Your task to perform on an android device: Go to privacy settings Image 0: 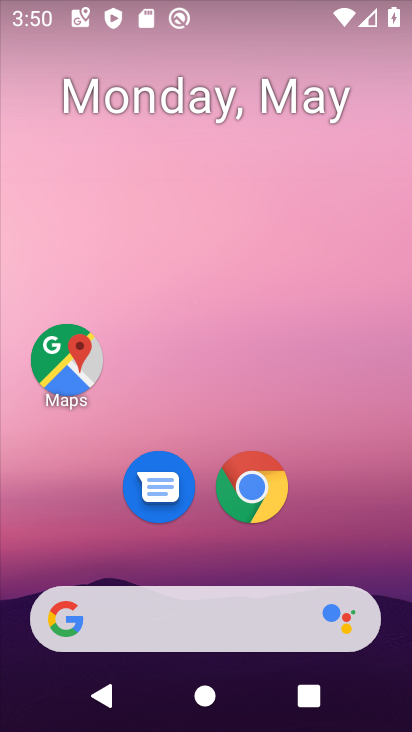
Step 0: drag from (236, 451) to (259, 149)
Your task to perform on an android device: Go to privacy settings Image 1: 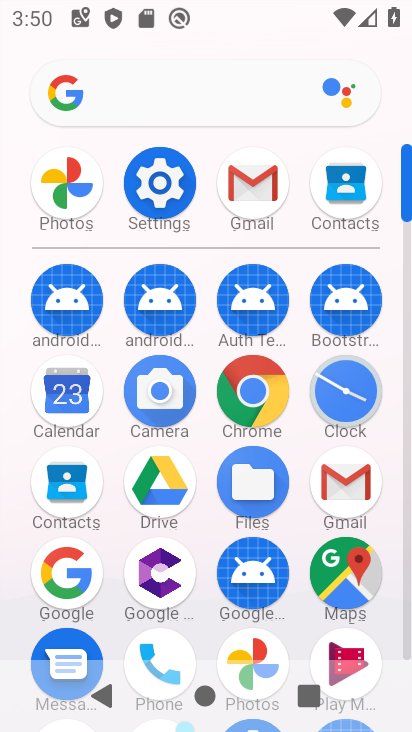
Step 1: click (152, 187)
Your task to perform on an android device: Go to privacy settings Image 2: 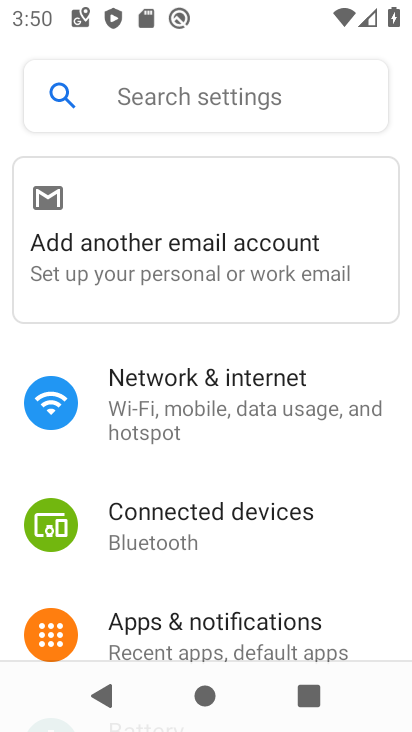
Step 2: drag from (153, 639) to (184, 219)
Your task to perform on an android device: Go to privacy settings Image 3: 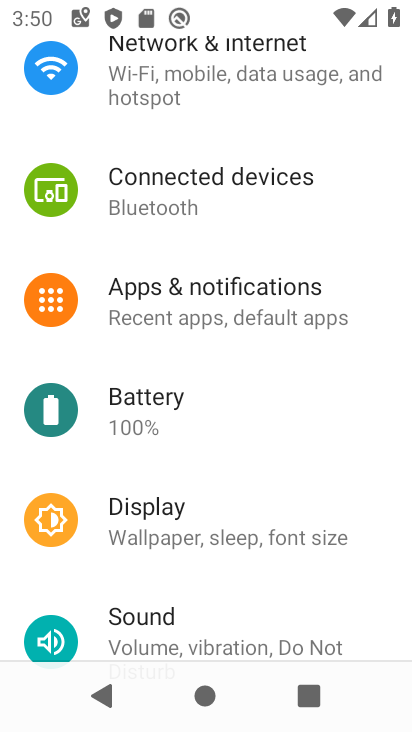
Step 3: click (177, 328)
Your task to perform on an android device: Go to privacy settings Image 4: 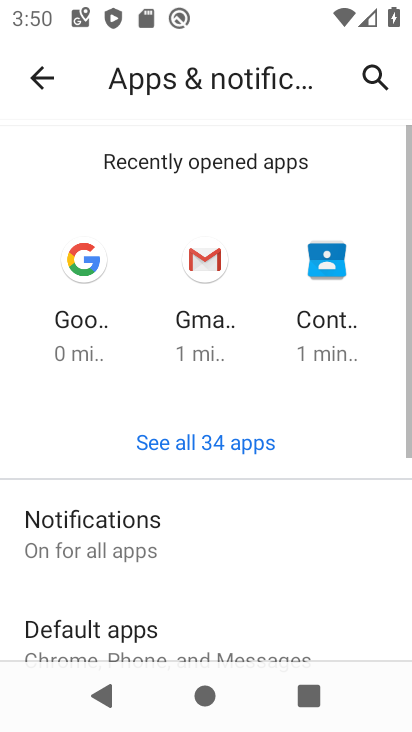
Step 4: click (55, 77)
Your task to perform on an android device: Go to privacy settings Image 5: 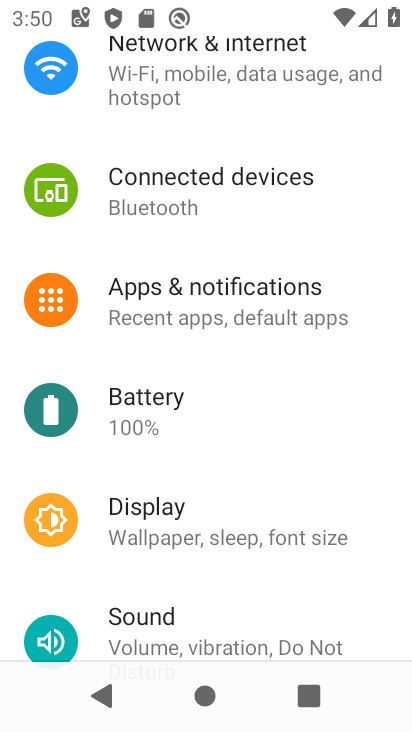
Step 5: drag from (210, 624) to (222, 203)
Your task to perform on an android device: Go to privacy settings Image 6: 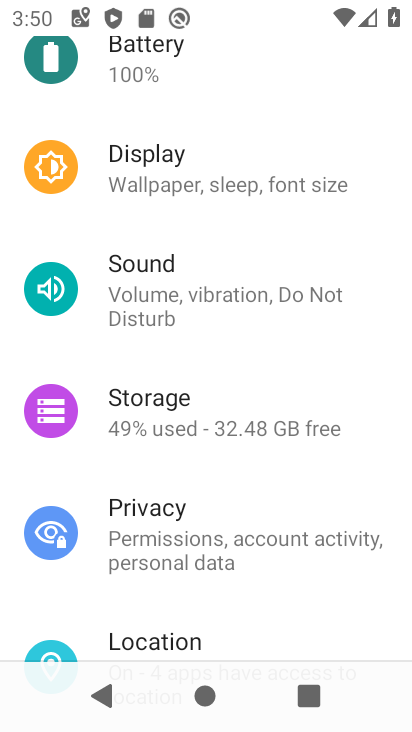
Step 6: click (183, 533)
Your task to perform on an android device: Go to privacy settings Image 7: 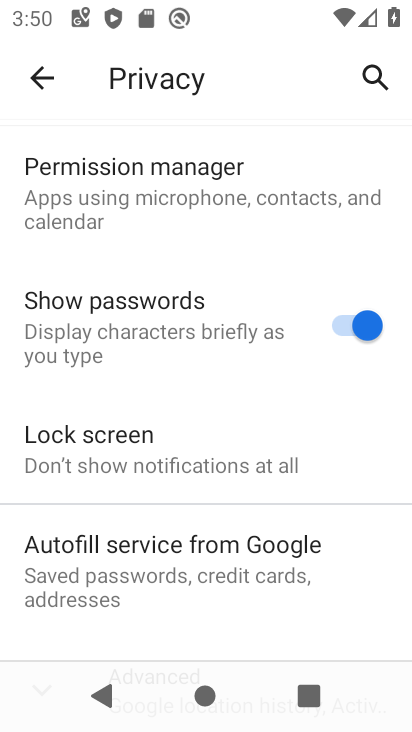
Step 7: task complete